Your task to perform on an android device: Open sound settings Image 0: 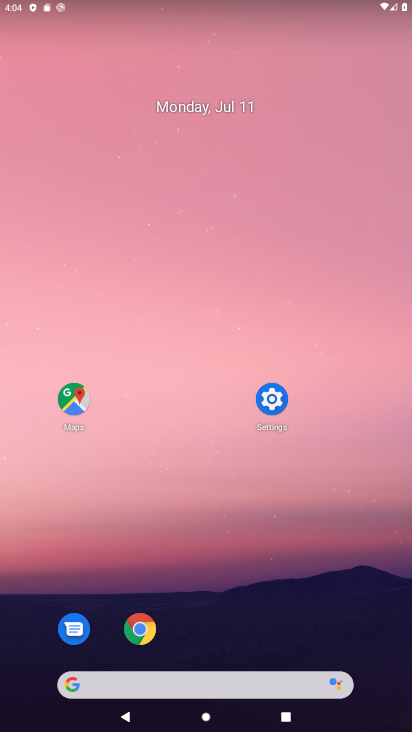
Step 0: click (271, 390)
Your task to perform on an android device: Open sound settings Image 1: 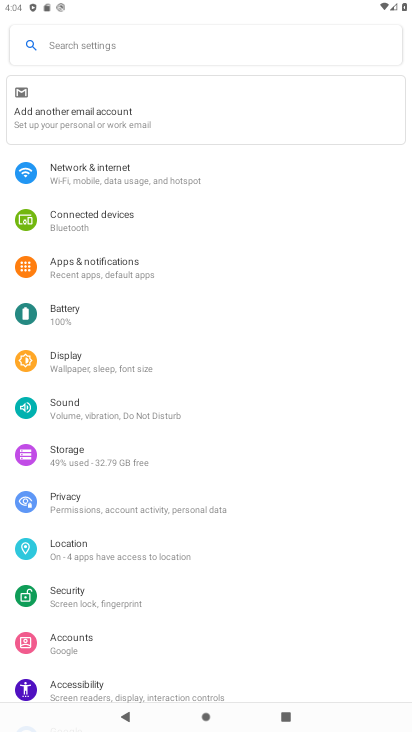
Step 1: click (197, 410)
Your task to perform on an android device: Open sound settings Image 2: 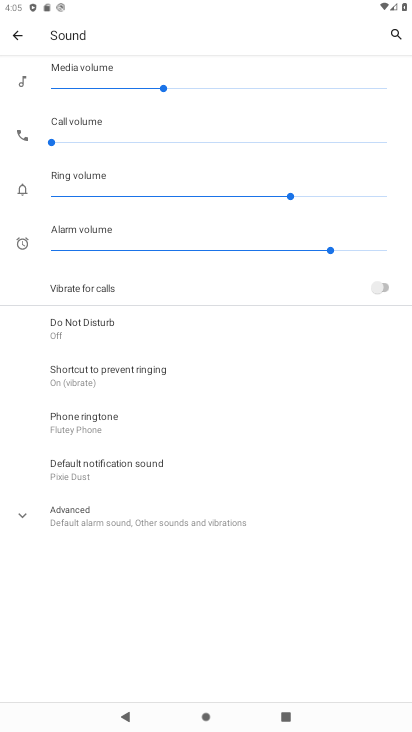
Step 2: task complete